Your task to perform on an android device: Search for flights from NYC to Sydney Image 0: 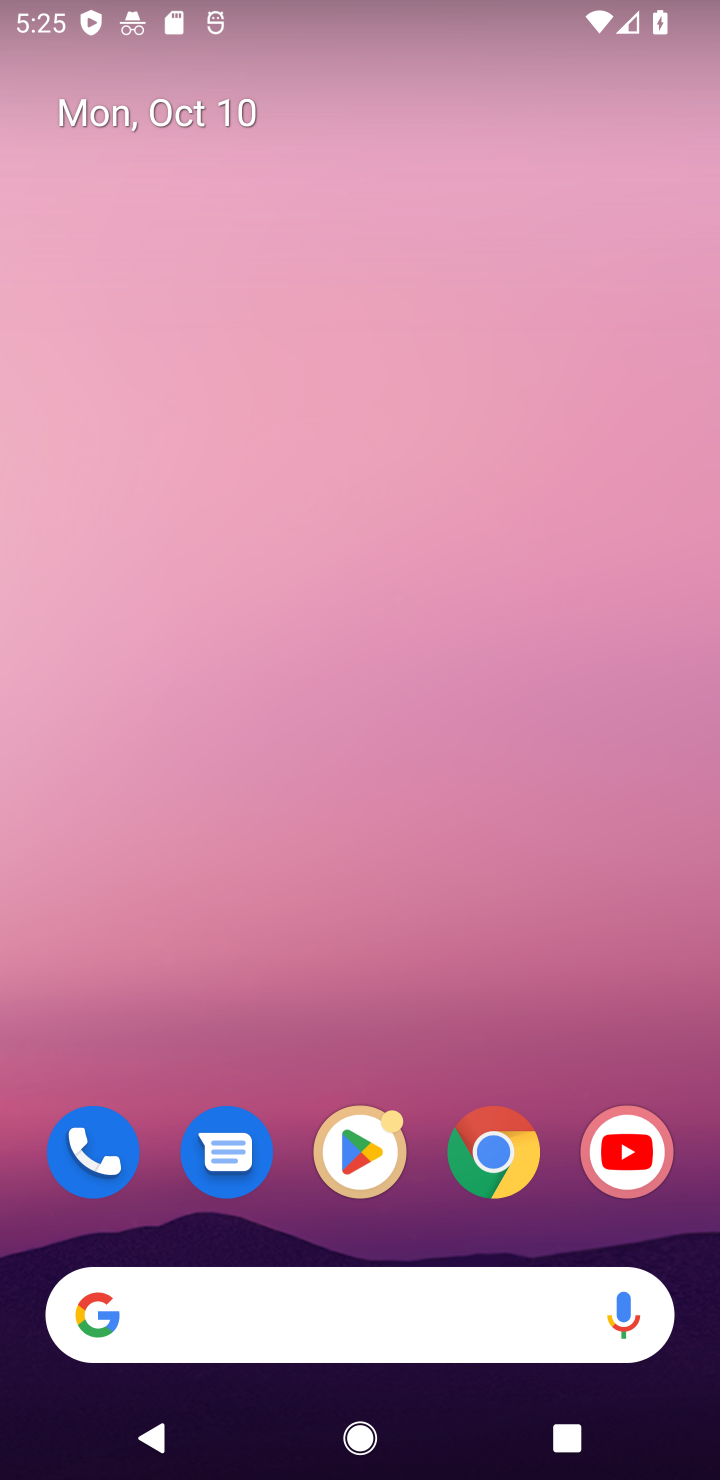
Step 0: click (492, 1157)
Your task to perform on an android device: Search for flights from NYC to Sydney Image 1: 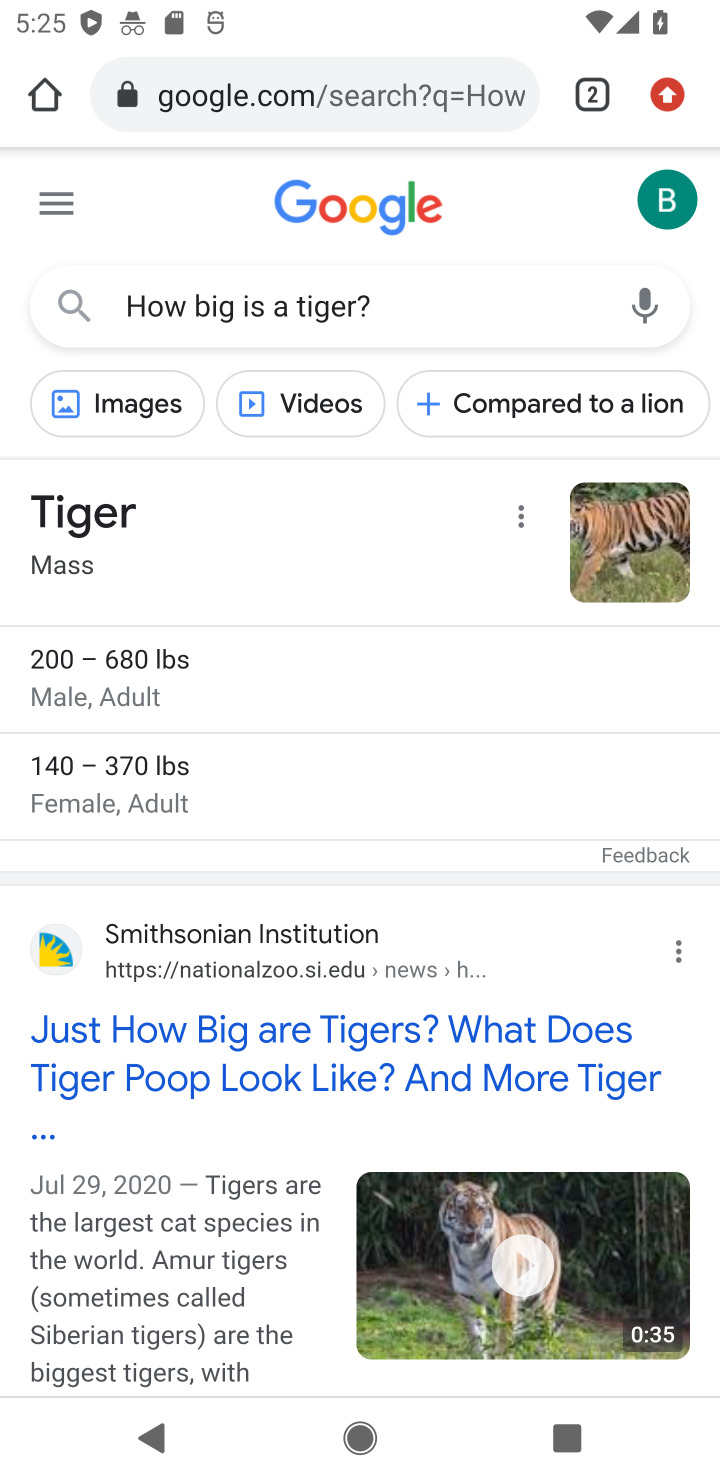
Step 1: click (348, 93)
Your task to perform on an android device: Search for flights from NYC to Sydney Image 2: 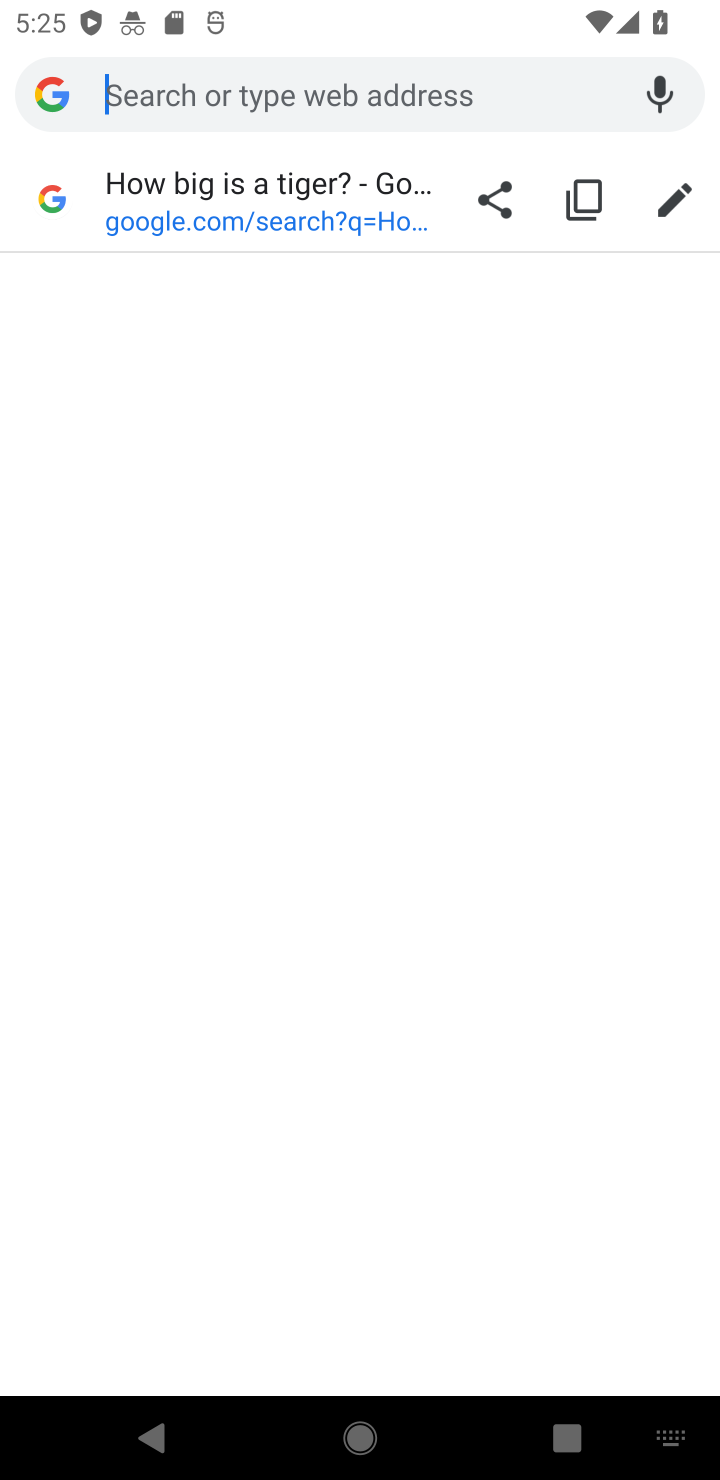
Step 2: type "flights from NYC to Sydney"
Your task to perform on an android device: Search for flights from NYC to Sydney Image 3: 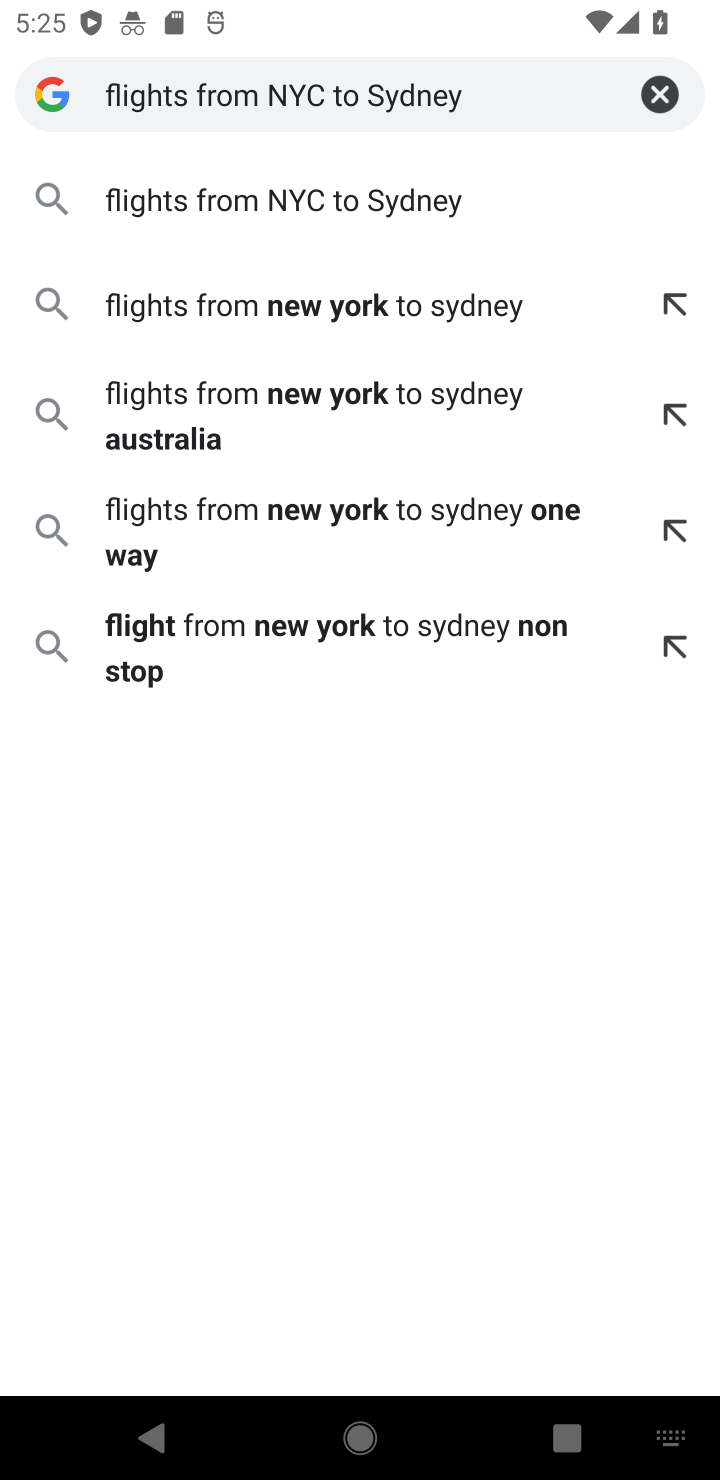
Step 3: click (360, 202)
Your task to perform on an android device: Search for flights from NYC to Sydney Image 4: 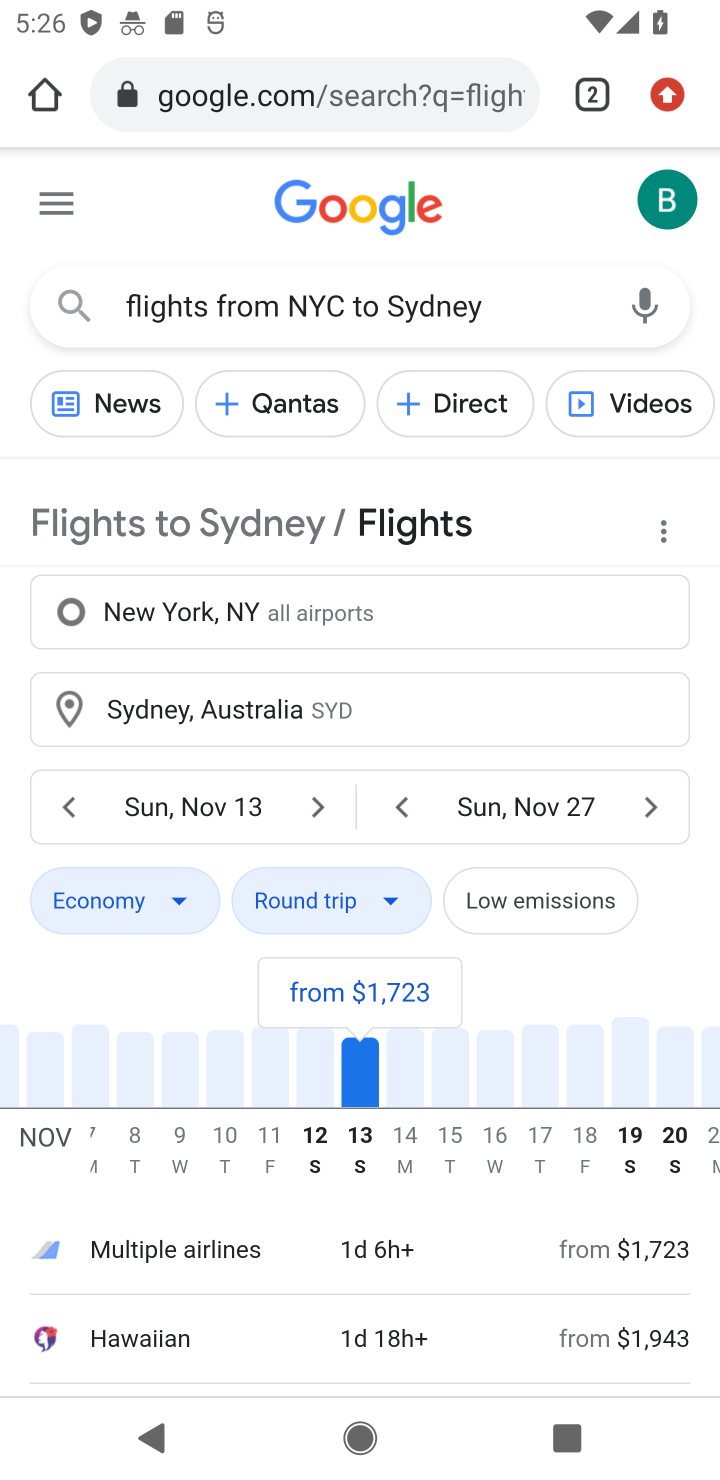
Step 4: task complete